Your task to perform on an android device: turn off sleep mode Image 0: 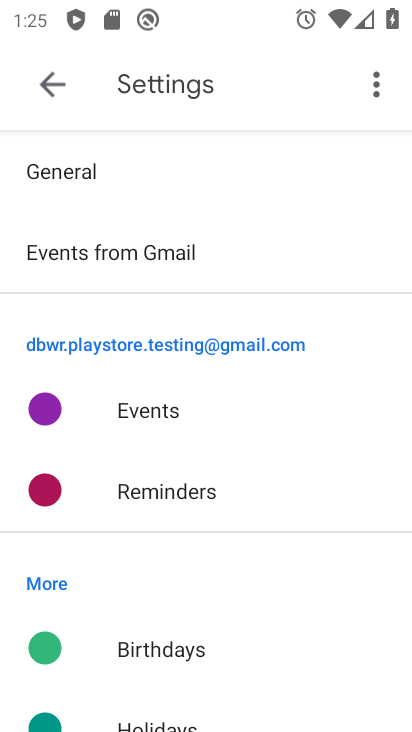
Step 0: press home button
Your task to perform on an android device: turn off sleep mode Image 1: 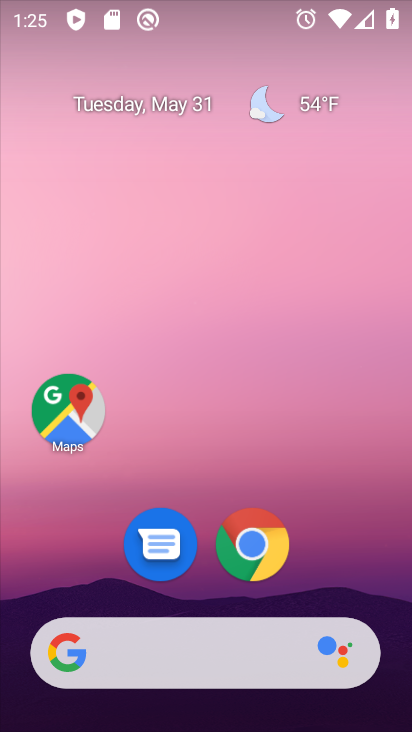
Step 1: drag from (208, 593) to (259, 37)
Your task to perform on an android device: turn off sleep mode Image 2: 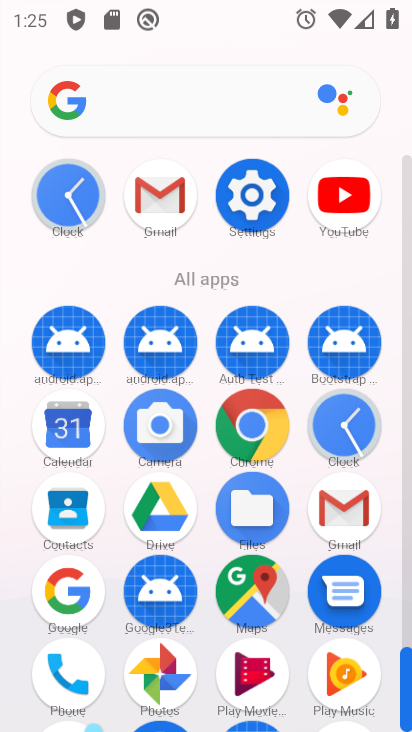
Step 2: click (249, 189)
Your task to perform on an android device: turn off sleep mode Image 3: 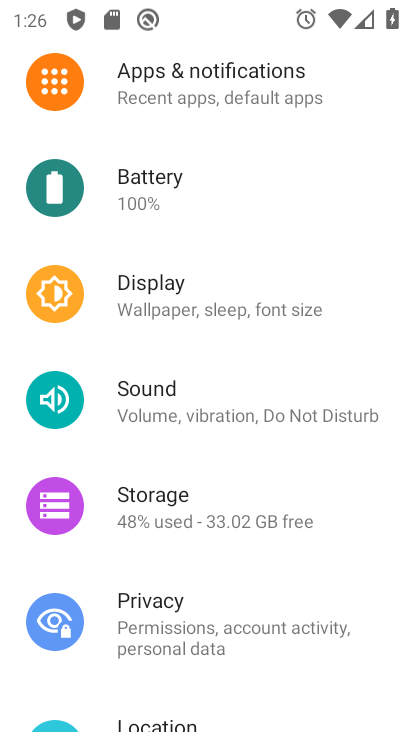
Step 3: click (228, 309)
Your task to perform on an android device: turn off sleep mode Image 4: 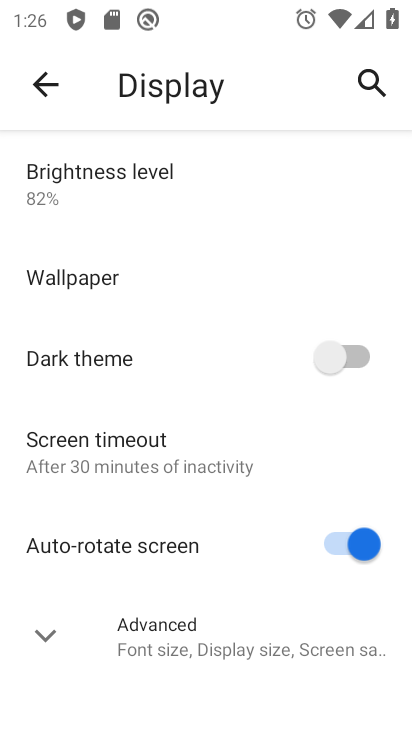
Step 4: click (233, 633)
Your task to perform on an android device: turn off sleep mode Image 5: 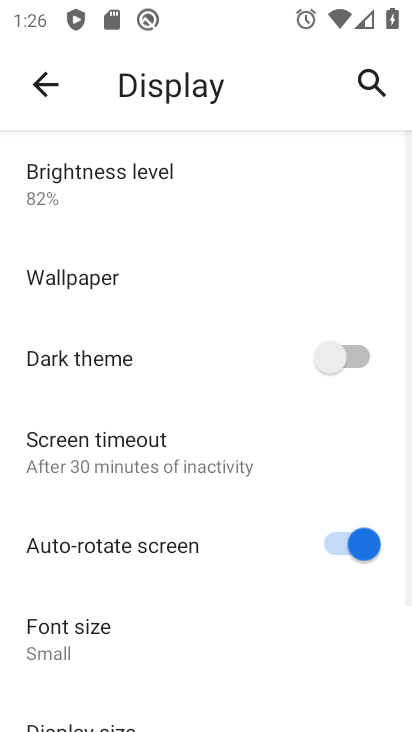
Step 5: task complete